Your task to perform on an android device: Open maps Image 0: 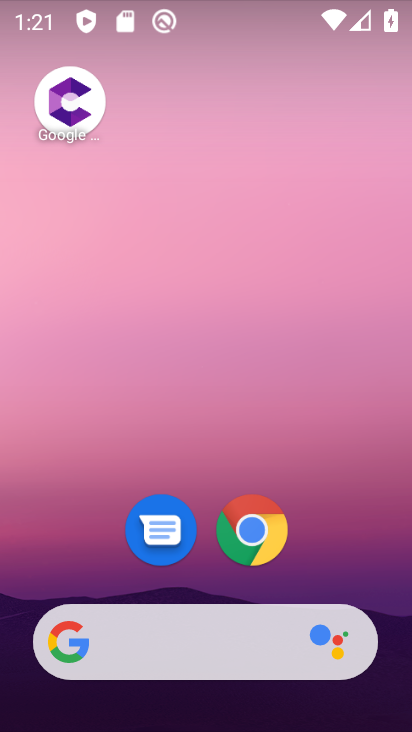
Step 0: drag from (226, 582) to (220, 123)
Your task to perform on an android device: Open maps Image 1: 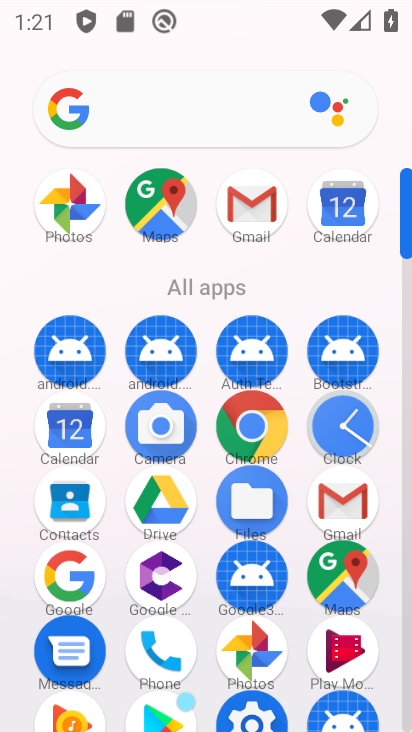
Step 1: click (151, 188)
Your task to perform on an android device: Open maps Image 2: 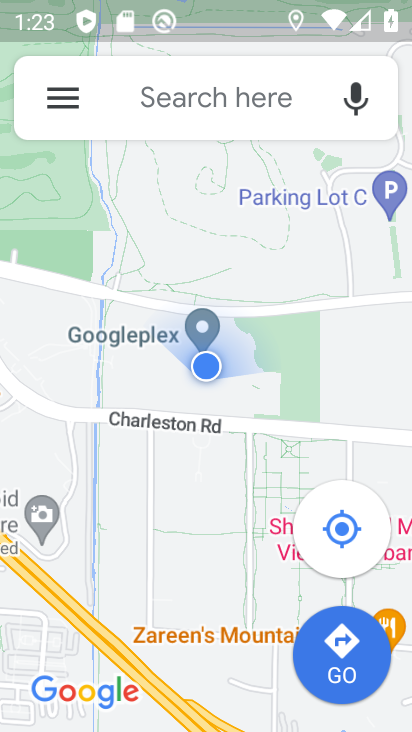
Step 2: task complete